Your task to perform on an android device: set an alarm Image 0: 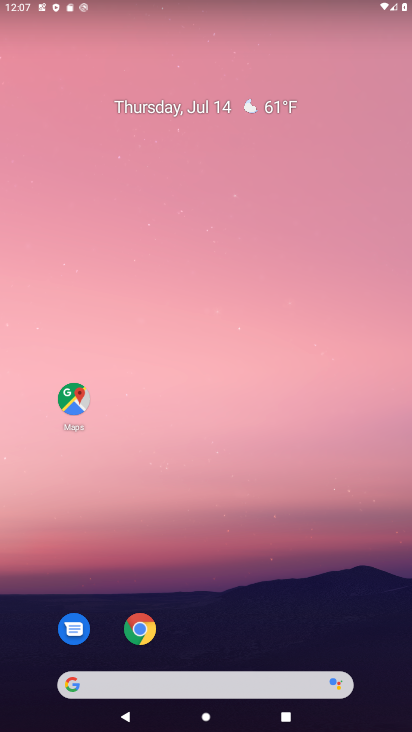
Step 0: drag from (266, 550) to (187, 115)
Your task to perform on an android device: set an alarm Image 1: 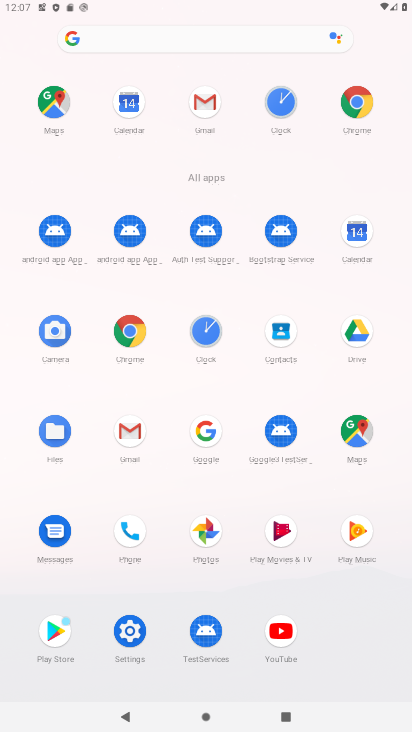
Step 1: click (207, 329)
Your task to perform on an android device: set an alarm Image 2: 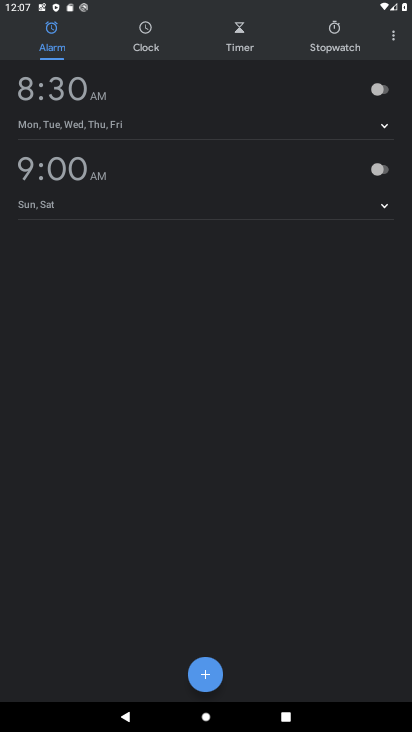
Step 2: click (204, 677)
Your task to perform on an android device: set an alarm Image 3: 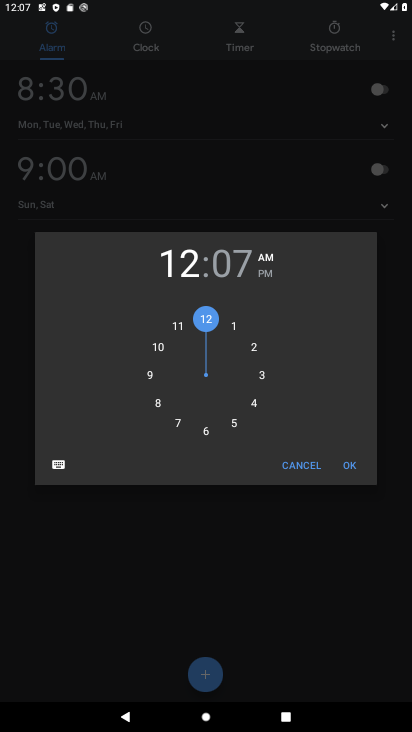
Step 3: click (352, 467)
Your task to perform on an android device: set an alarm Image 4: 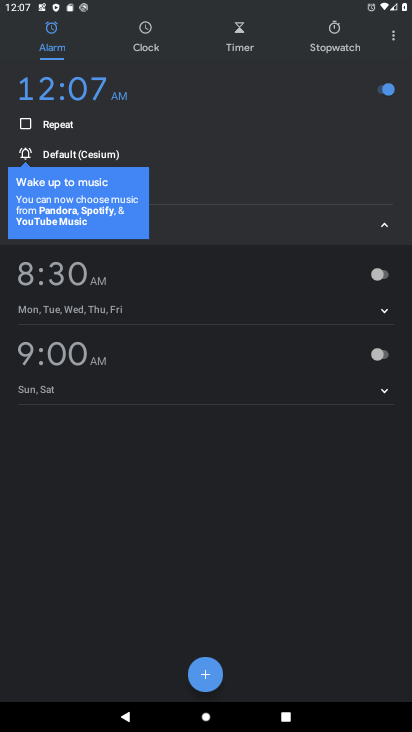
Step 4: task complete